Your task to perform on an android device: turn on priority inbox in the gmail app Image 0: 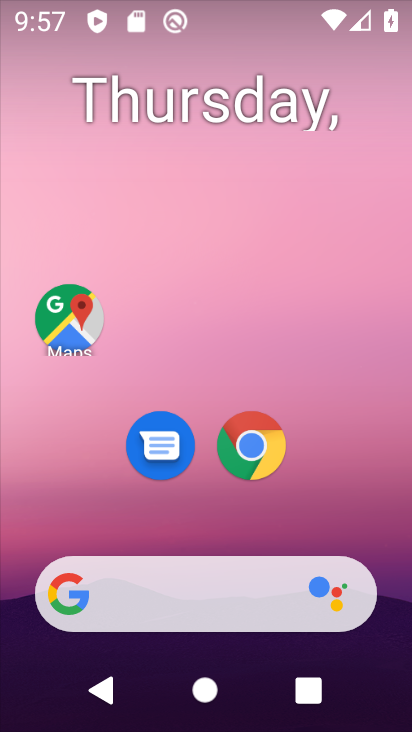
Step 0: drag from (235, 511) to (223, 4)
Your task to perform on an android device: turn on priority inbox in the gmail app Image 1: 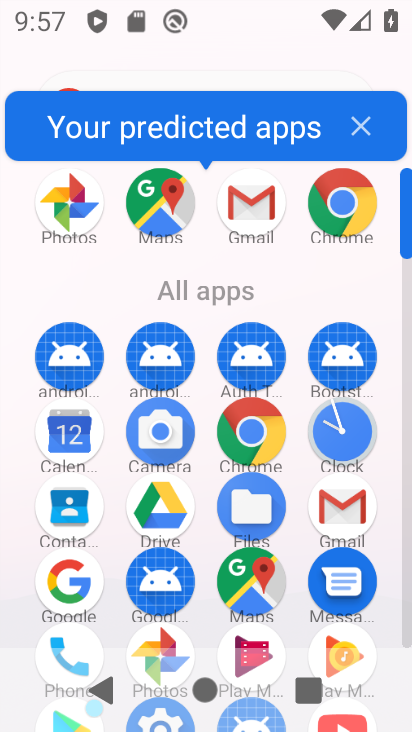
Step 1: click (343, 518)
Your task to perform on an android device: turn on priority inbox in the gmail app Image 2: 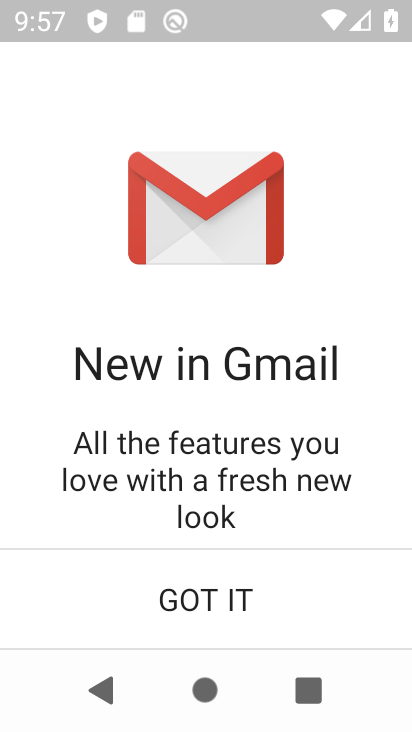
Step 2: click (270, 596)
Your task to perform on an android device: turn on priority inbox in the gmail app Image 3: 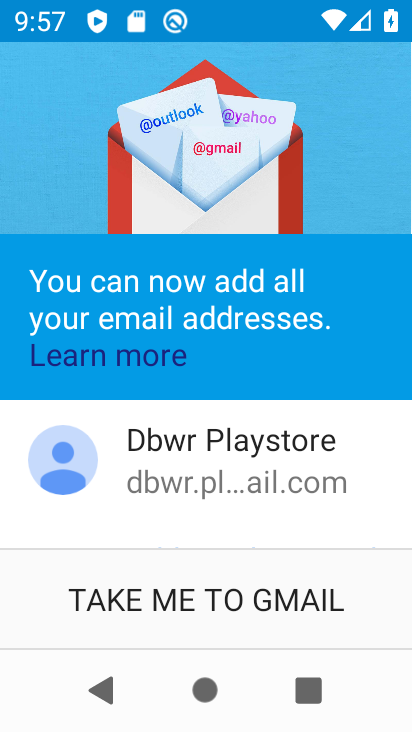
Step 3: click (264, 616)
Your task to perform on an android device: turn on priority inbox in the gmail app Image 4: 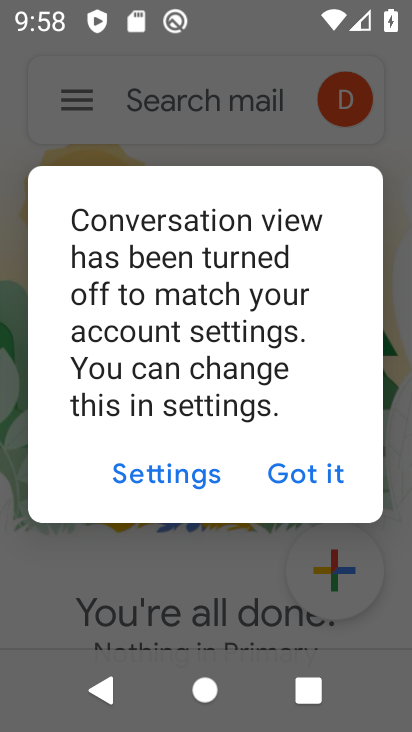
Step 4: click (189, 483)
Your task to perform on an android device: turn on priority inbox in the gmail app Image 5: 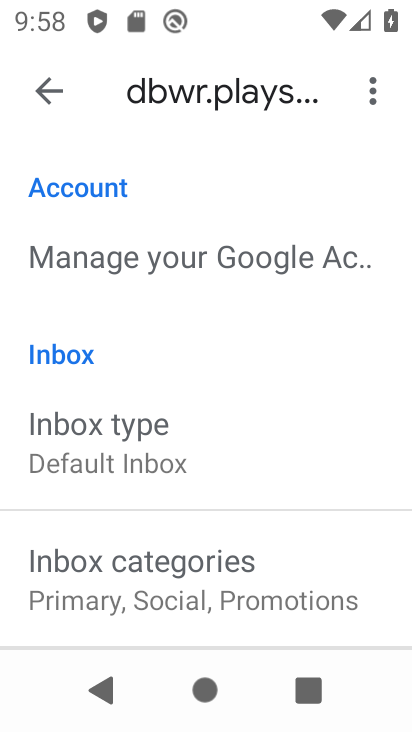
Step 5: click (108, 439)
Your task to perform on an android device: turn on priority inbox in the gmail app Image 6: 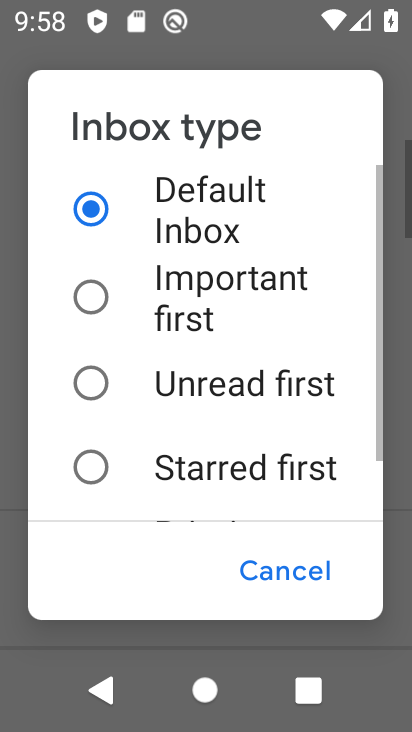
Step 6: drag from (129, 467) to (199, 43)
Your task to perform on an android device: turn on priority inbox in the gmail app Image 7: 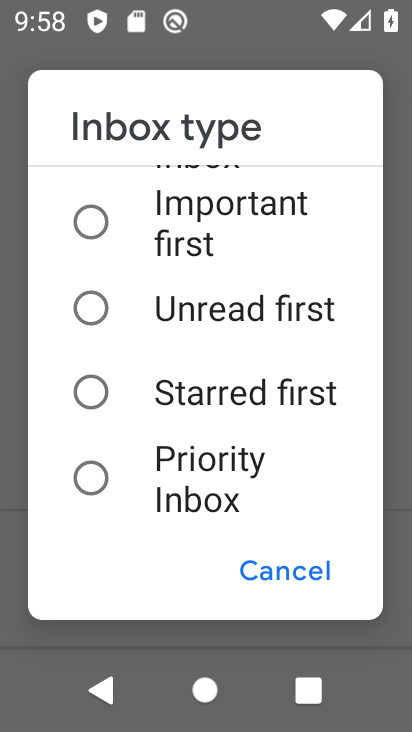
Step 7: click (91, 482)
Your task to perform on an android device: turn on priority inbox in the gmail app Image 8: 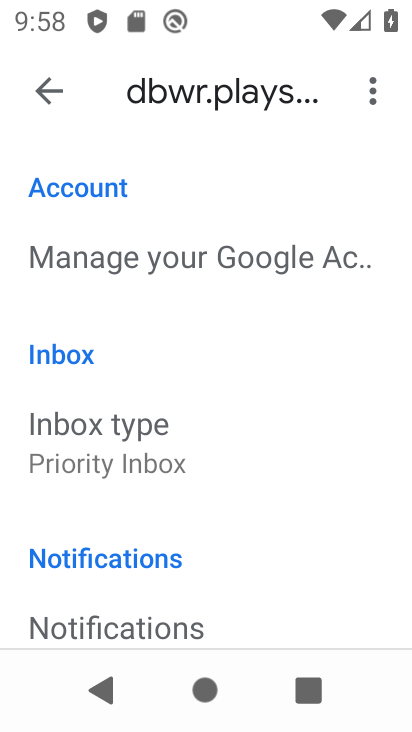
Step 8: task complete